Your task to perform on an android device: check the backup settings in the google photos Image 0: 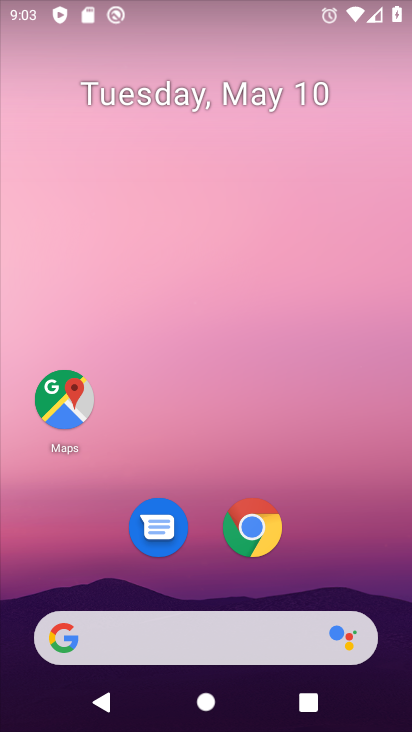
Step 0: drag from (226, 605) to (195, 6)
Your task to perform on an android device: check the backup settings in the google photos Image 1: 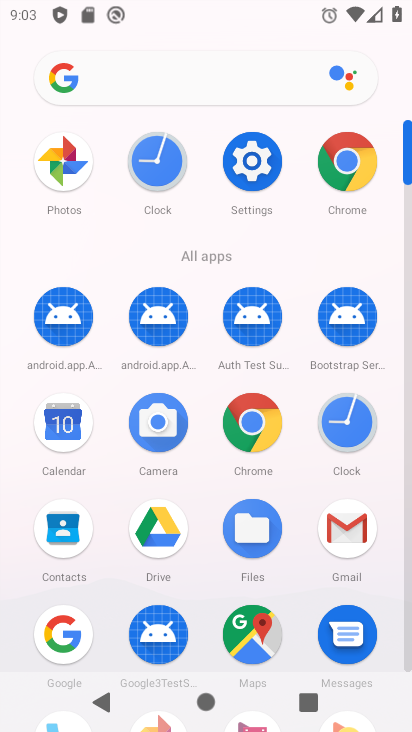
Step 1: click (54, 165)
Your task to perform on an android device: check the backup settings in the google photos Image 2: 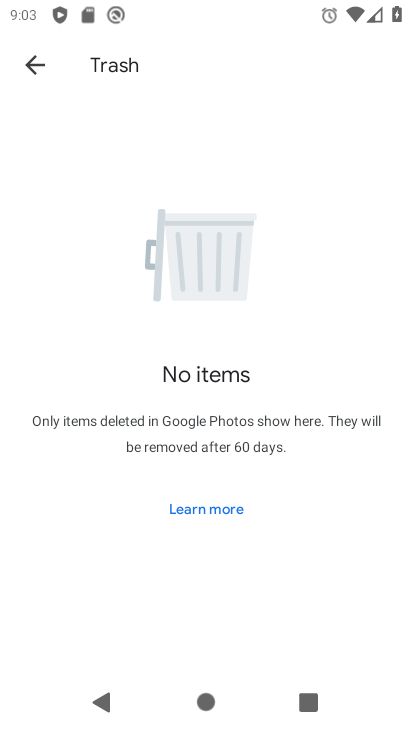
Step 2: click (47, 57)
Your task to perform on an android device: check the backup settings in the google photos Image 3: 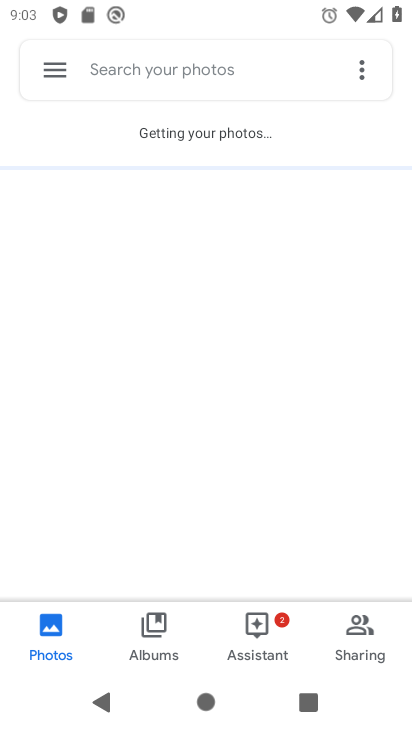
Step 3: click (47, 57)
Your task to perform on an android device: check the backup settings in the google photos Image 4: 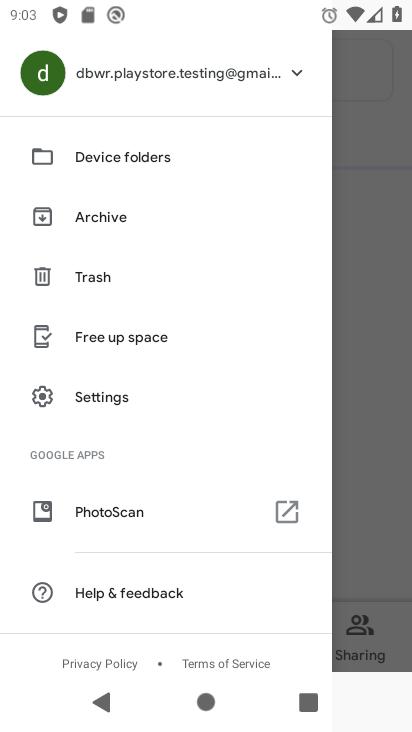
Step 4: click (119, 66)
Your task to perform on an android device: check the backup settings in the google photos Image 5: 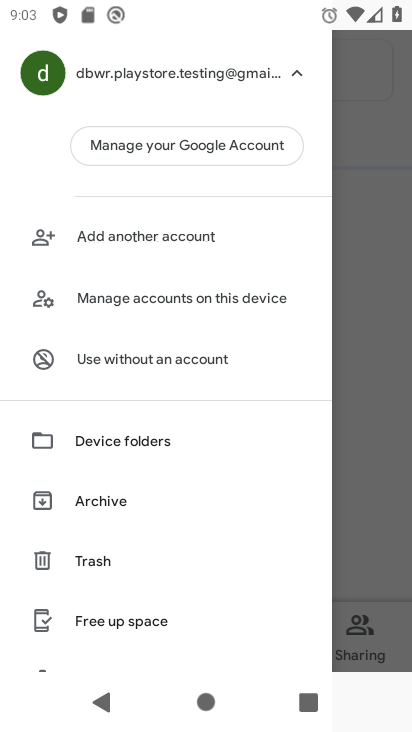
Step 5: click (130, 135)
Your task to perform on an android device: check the backup settings in the google photos Image 6: 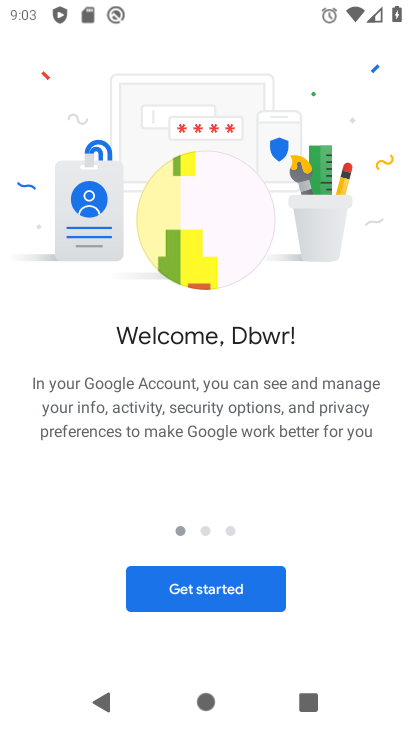
Step 6: click (220, 588)
Your task to perform on an android device: check the backup settings in the google photos Image 7: 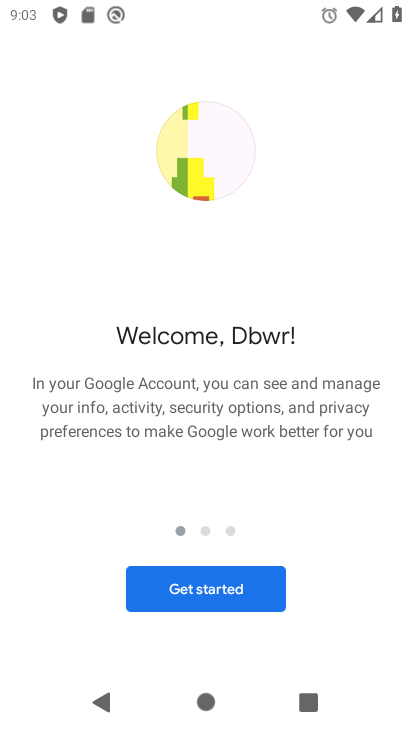
Step 7: click (221, 587)
Your task to perform on an android device: check the backup settings in the google photos Image 8: 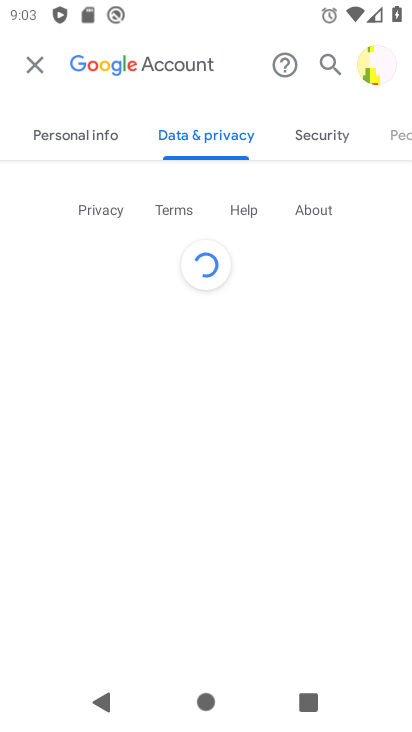
Step 8: click (14, 64)
Your task to perform on an android device: check the backup settings in the google photos Image 9: 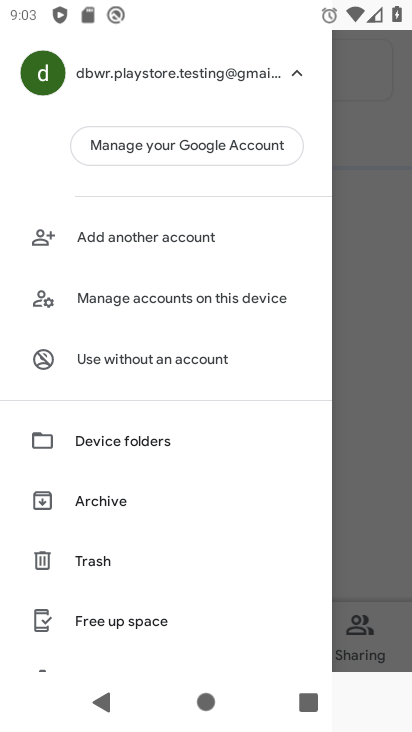
Step 9: drag from (148, 551) to (99, 2)
Your task to perform on an android device: check the backup settings in the google photos Image 10: 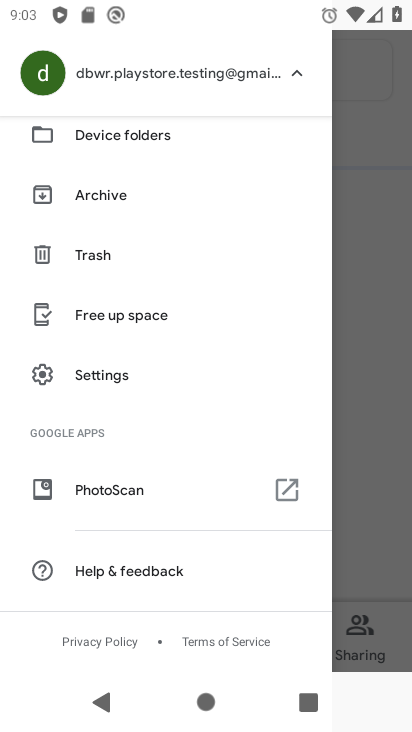
Step 10: click (108, 365)
Your task to perform on an android device: check the backup settings in the google photos Image 11: 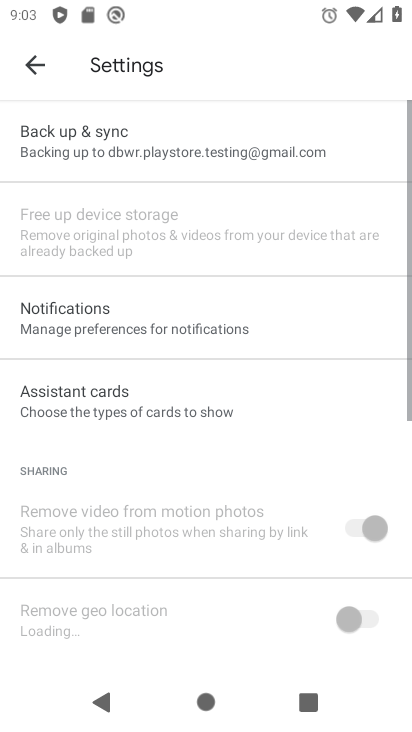
Step 11: click (110, 137)
Your task to perform on an android device: check the backup settings in the google photos Image 12: 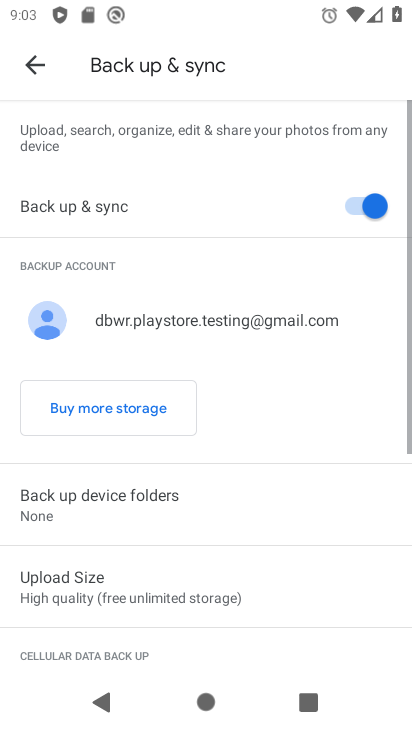
Step 12: task complete